Your task to perform on an android device: Open settings Image 0: 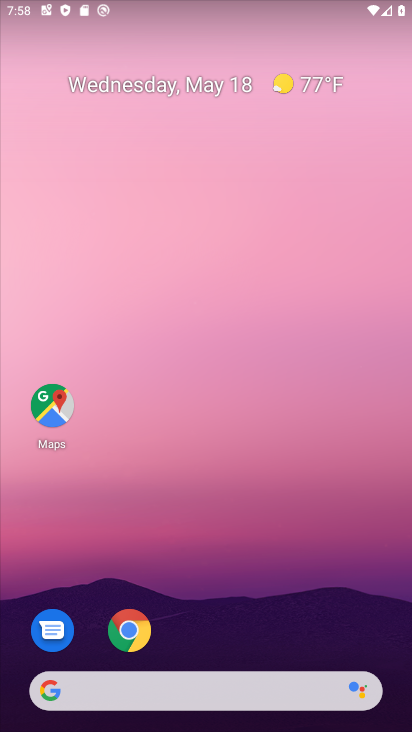
Step 0: drag from (196, 385) to (218, 162)
Your task to perform on an android device: Open settings Image 1: 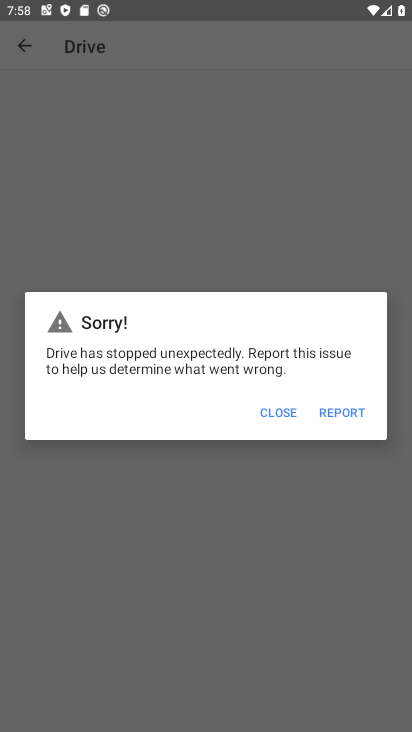
Step 1: press home button
Your task to perform on an android device: Open settings Image 2: 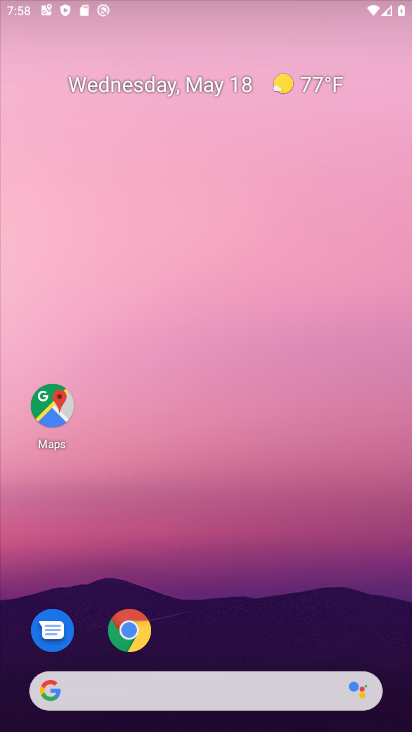
Step 2: drag from (199, 569) to (232, 190)
Your task to perform on an android device: Open settings Image 3: 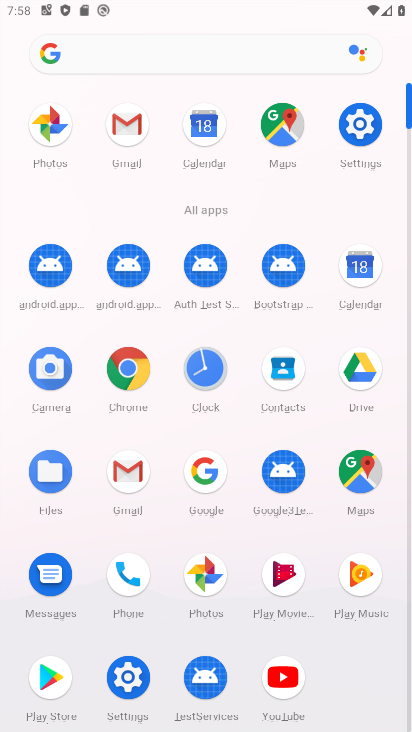
Step 3: click (380, 134)
Your task to perform on an android device: Open settings Image 4: 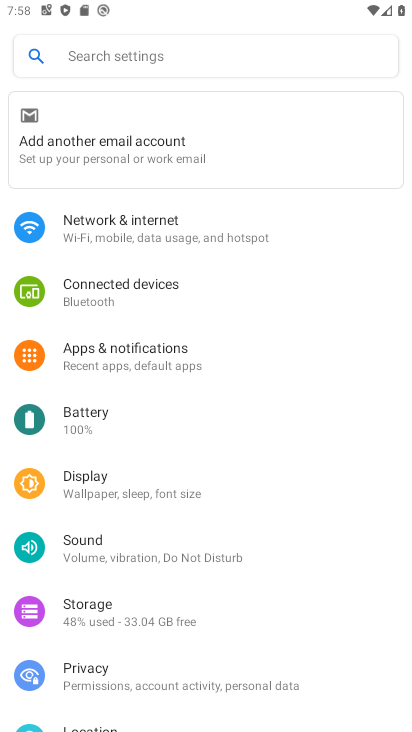
Step 4: task complete